Your task to perform on an android device: change the clock display to digital Image 0: 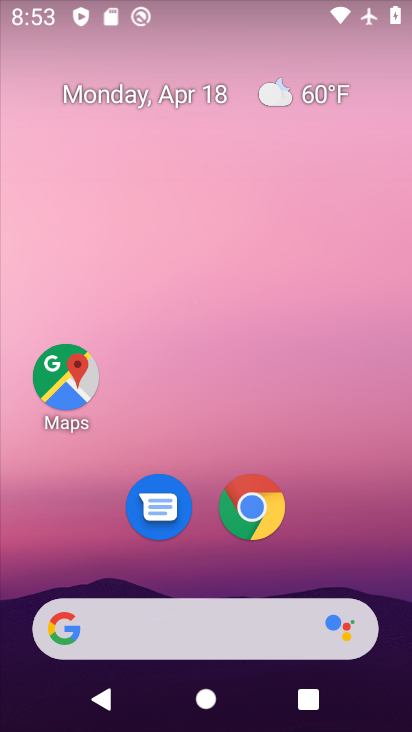
Step 0: drag from (336, 534) to (316, 127)
Your task to perform on an android device: change the clock display to digital Image 1: 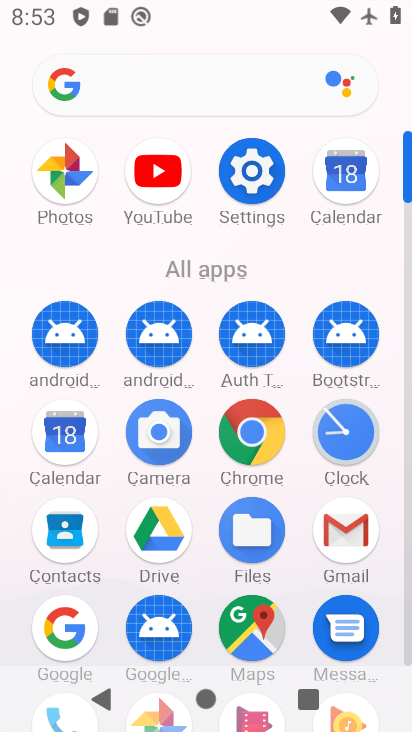
Step 1: click (333, 446)
Your task to perform on an android device: change the clock display to digital Image 2: 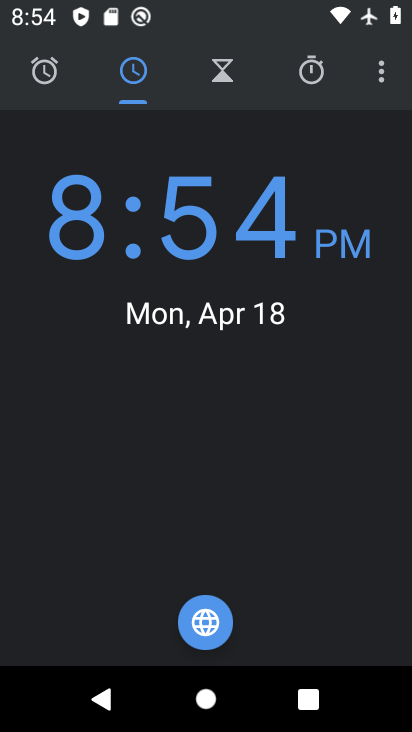
Step 2: click (382, 75)
Your task to perform on an android device: change the clock display to digital Image 3: 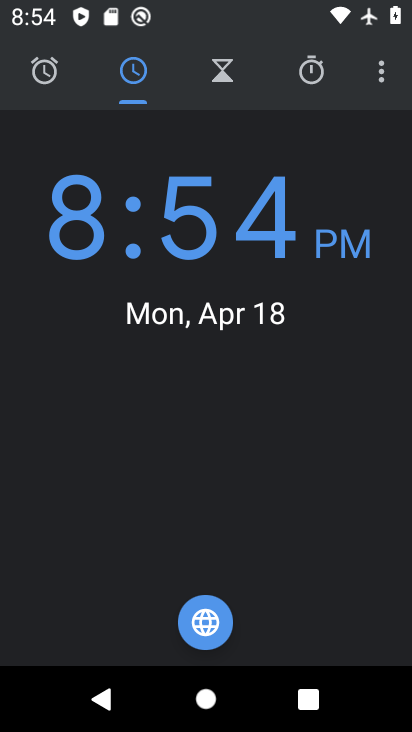
Step 3: task complete